Your task to perform on an android device: Show me productivity apps on the Play Store Image 0: 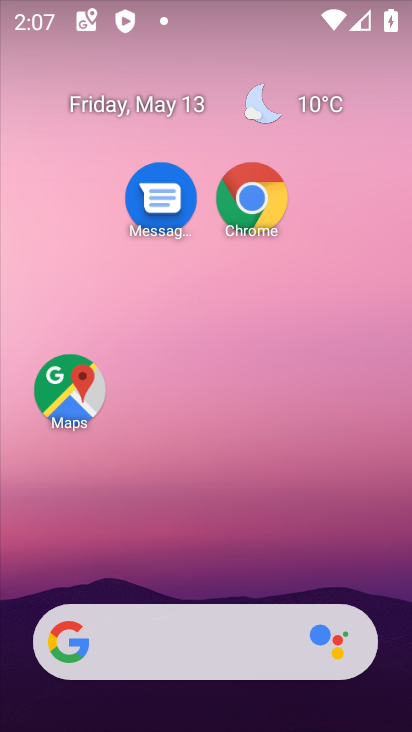
Step 0: drag from (226, 566) to (396, 70)
Your task to perform on an android device: Show me productivity apps on the Play Store Image 1: 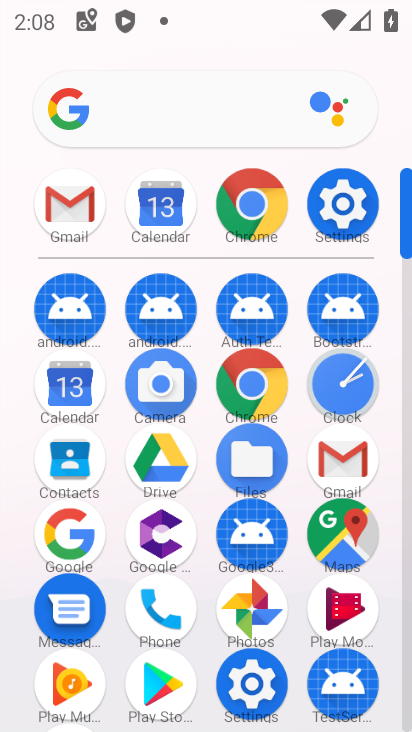
Step 1: click (160, 664)
Your task to perform on an android device: Show me productivity apps on the Play Store Image 2: 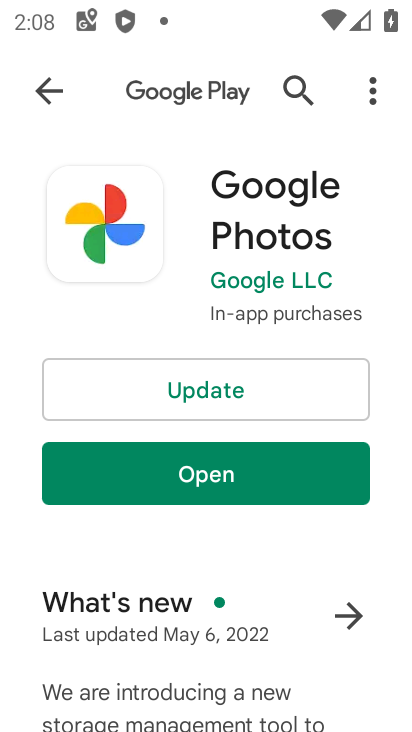
Step 2: click (44, 71)
Your task to perform on an android device: Show me productivity apps on the Play Store Image 3: 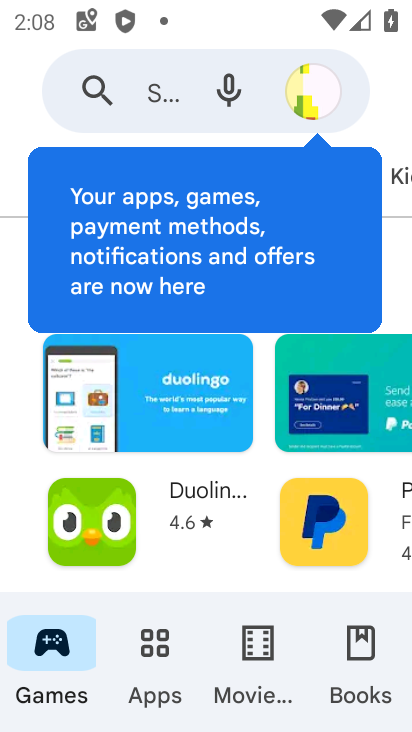
Step 3: click (162, 695)
Your task to perform on an android device: Show me productivity apps on the Play Store Image 4: 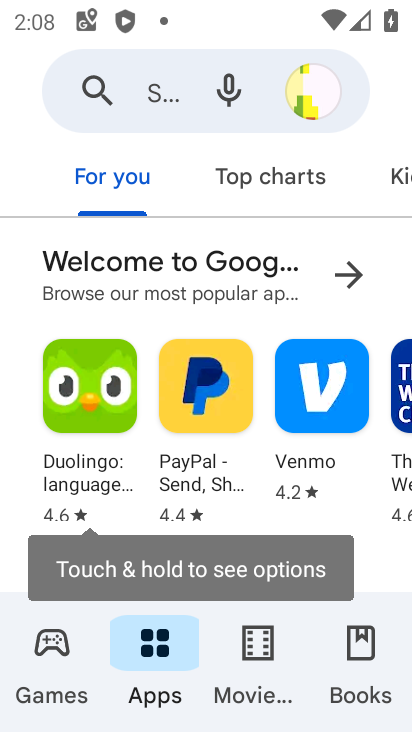
Step 4: drag from (400, 195) to (91, 180)
Your task to perform on an android device: Show me productivity apps on the Play Store Image 5: 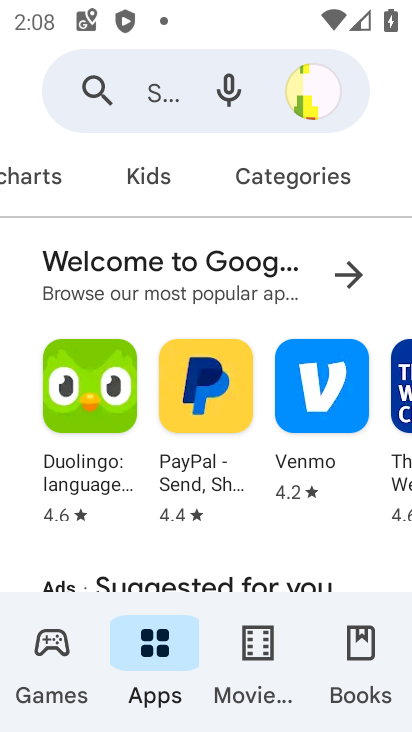
Step 5: click (276, 171)
Your task to perform on an android device: Show me productivity apps on the Play Store Image 6: 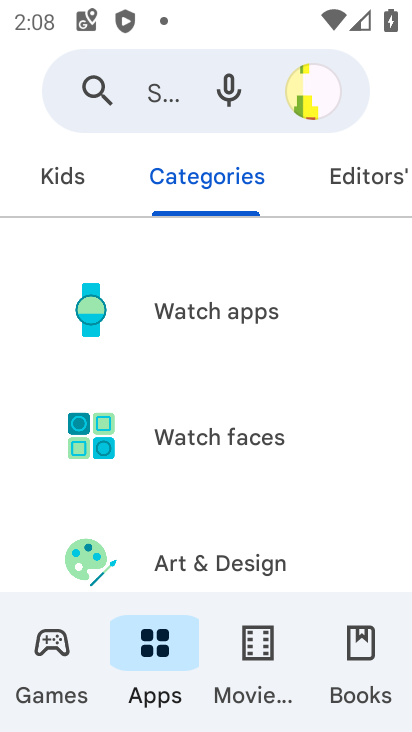
Step 6: drag from (283, 505) to (229, 93)
Your task to perform on an android device: Show me productivity apps on the Play Store Image 7: 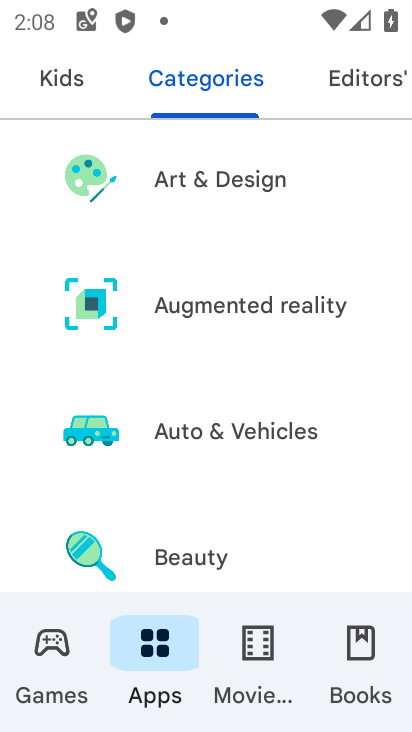
Step 7: drag from (201, 592) to (127, 11)
Your task to perform on an android device: Show me productivity apps on the Play Store Image 8: 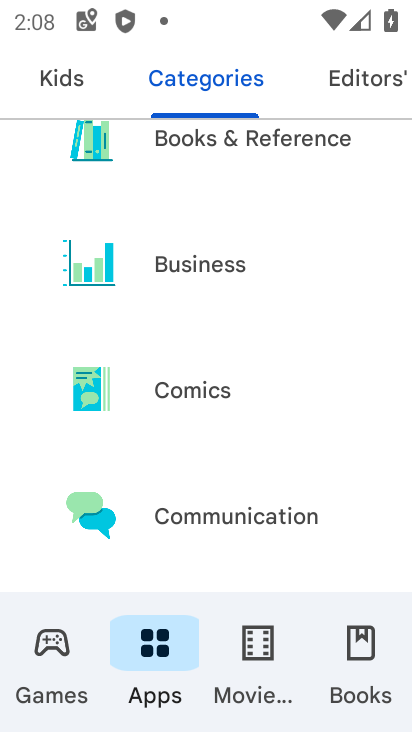
Step 8: drag from (205, 483) to (127, 15)
Your task to perform on an android device: Show me productivity apps on the Play Store Image 9: 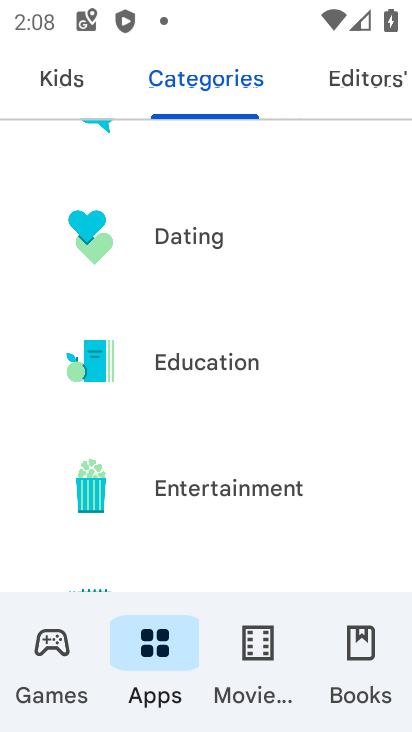
Step 9: drag from (161, 504) to (155, 5)
Your task to perform on an android device: Show me productivity apps on the Play Store Image 10: 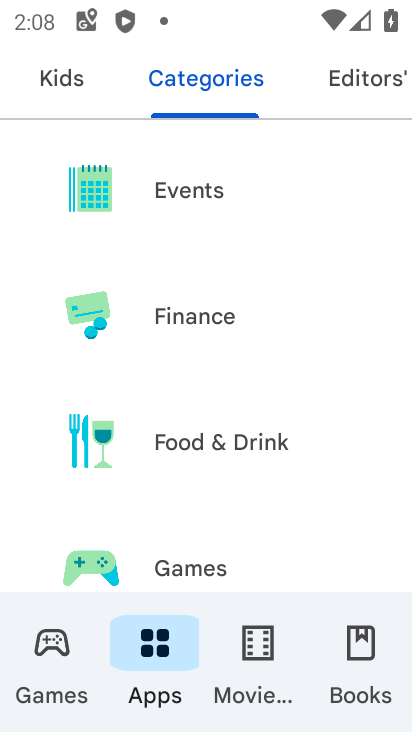
Step 10: drag from (267, 516) to (267, 112)
Your task to perform on an android device: Show me productivity apps on the Play Store Image 11: 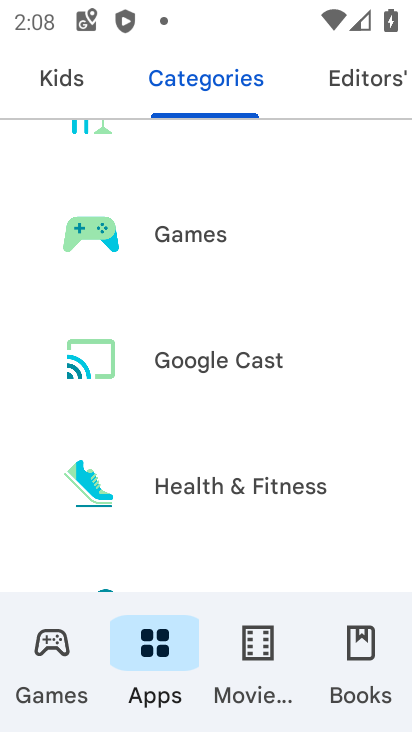
Step 11: drag from (213, 462) to (252, 1)
Your task to perform on an android device: Show me productivity apps on the Play Store Image 12: 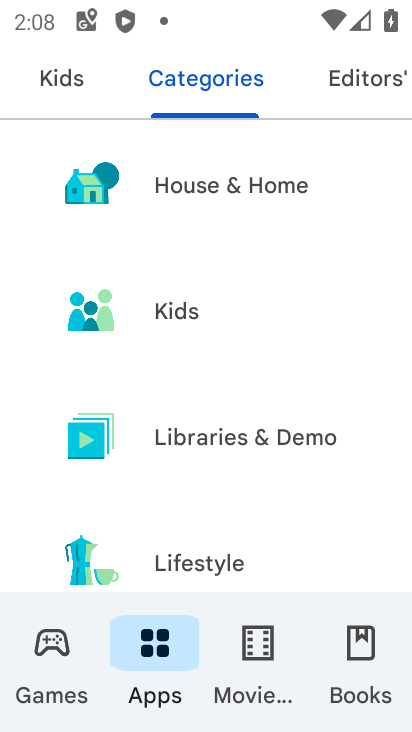
Step 12: drag from (219, 530) to (189, 19)
Your task to perform on an android device: Show me productivity apps on the Play Store Image 13: 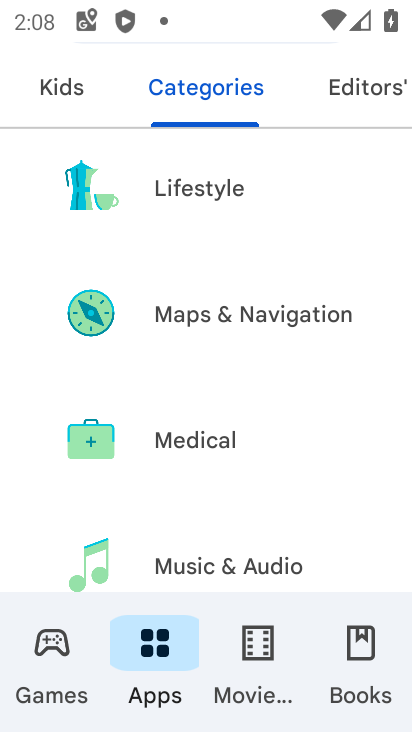
Step 13: drag from (236, 565) to (224, 27)
Your task to perform on an android device: Show me productivity apps on the Play Store Image 14: 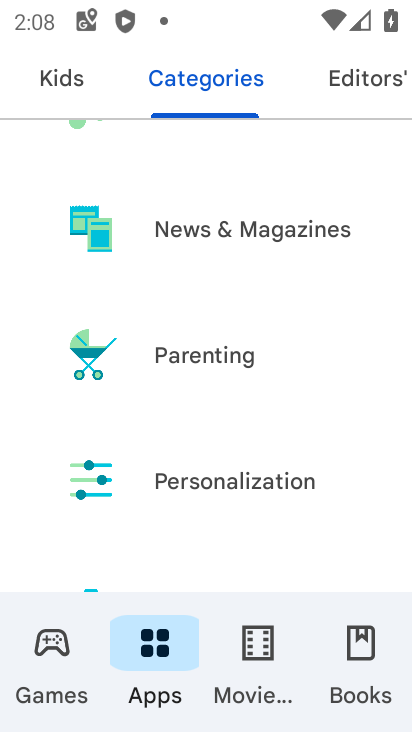
Step 14: drag from (280, 458) to (256, 106)
Your task to perform on an android device: Show me productivity apps on the Play Store Image 15: 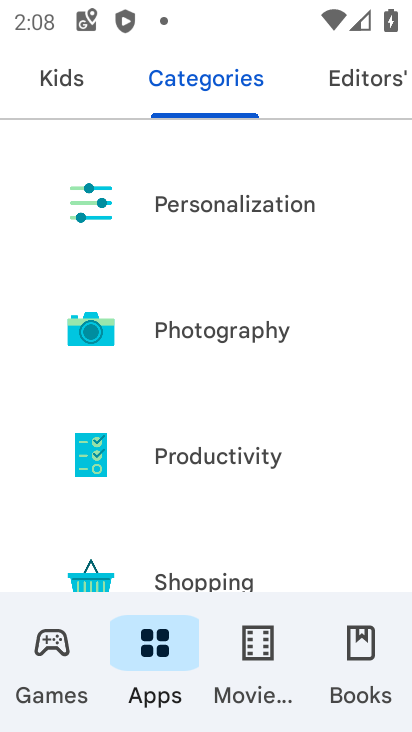
Step 15: click (248, 437)
Your task to perform on an android device: Show me productivity apps on the Play Store Image 16: 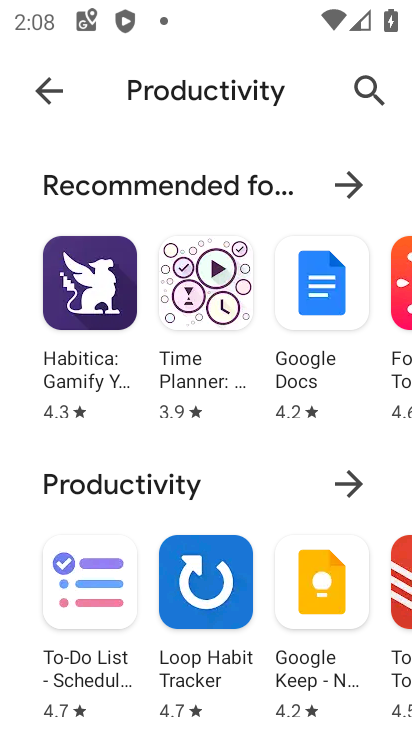
Step 16: task complete